Your task to perform on an android device: Open Google Chrome Image 0: 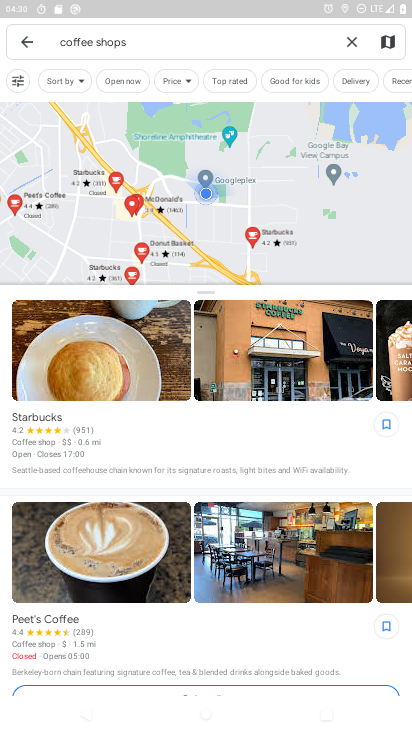
Step 0: press home button
Your task to perform on an android device: Open Google Chrome Image 1: 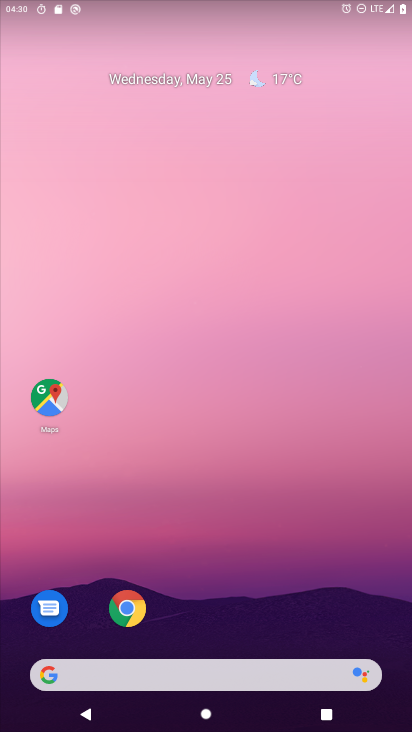
Step 1: click (193, 506)
Your task to perform on an android device: Open Google Chrome Image 2: 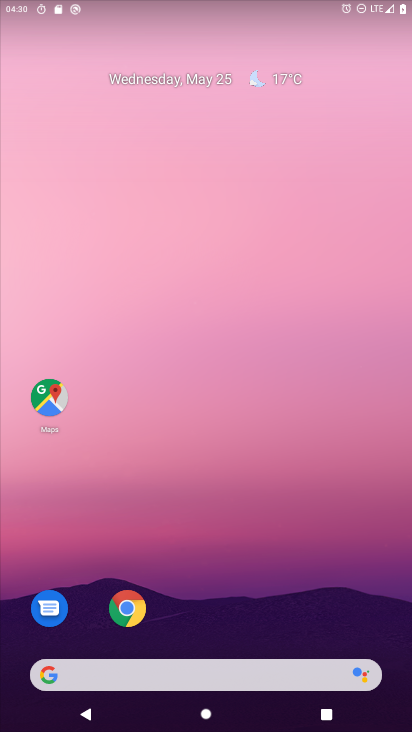
Step 2: click (130, 613)
Your task to perform on an android device: Open Google Chrome Image 3: 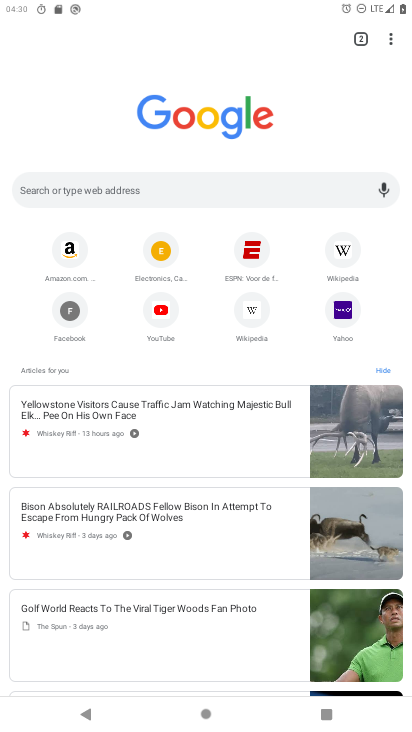
Step 3: task complete